Your task to perform on an android device: Empty the shopping cart on ebay.com. Search for alienware aurora on ebay.com, select the first entry, add it to the cart, then select checkout. Image 0: 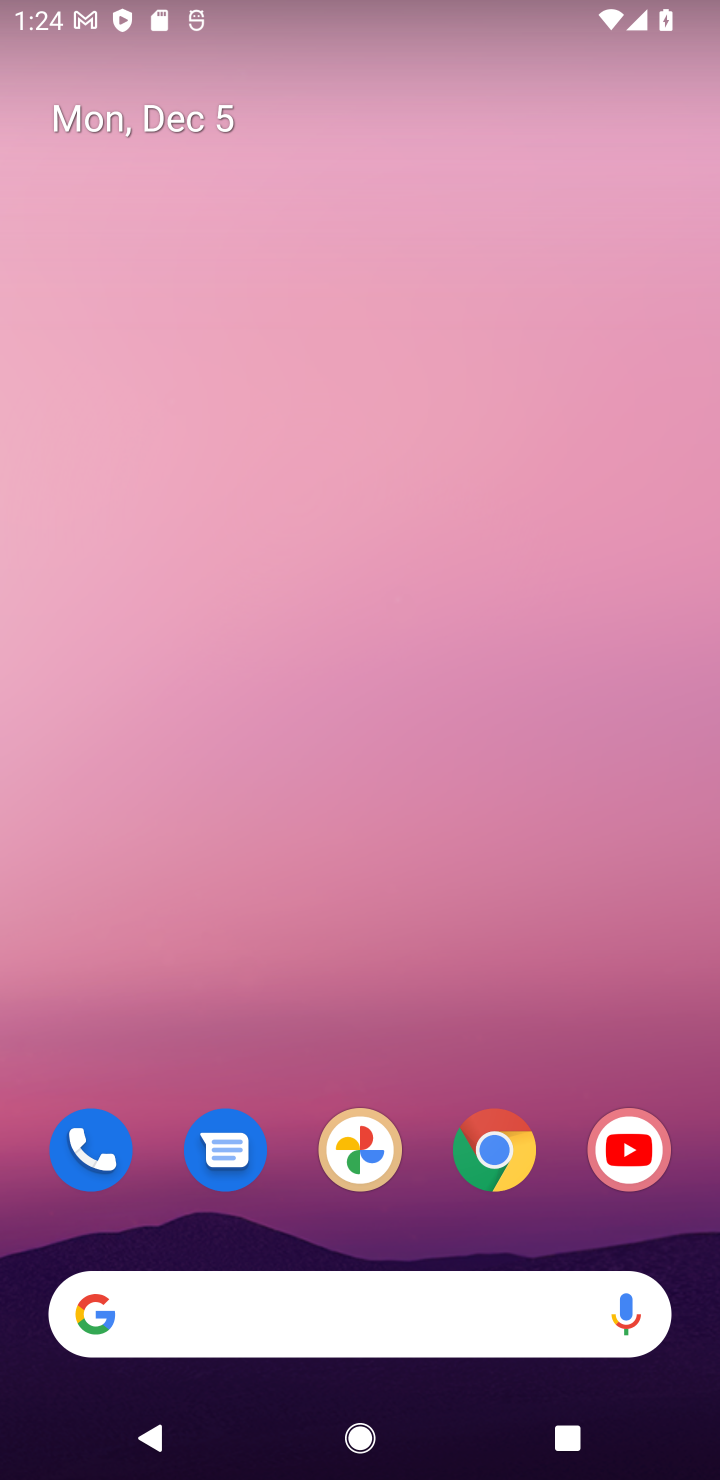
Step 0: click (479, 1151)
Your task to perform on an android device: Empty the shopping cart on ebay.com. Search for alienware aurora on ebay.com, select the first entry, add it to the cart, then select checkout. Image 1: 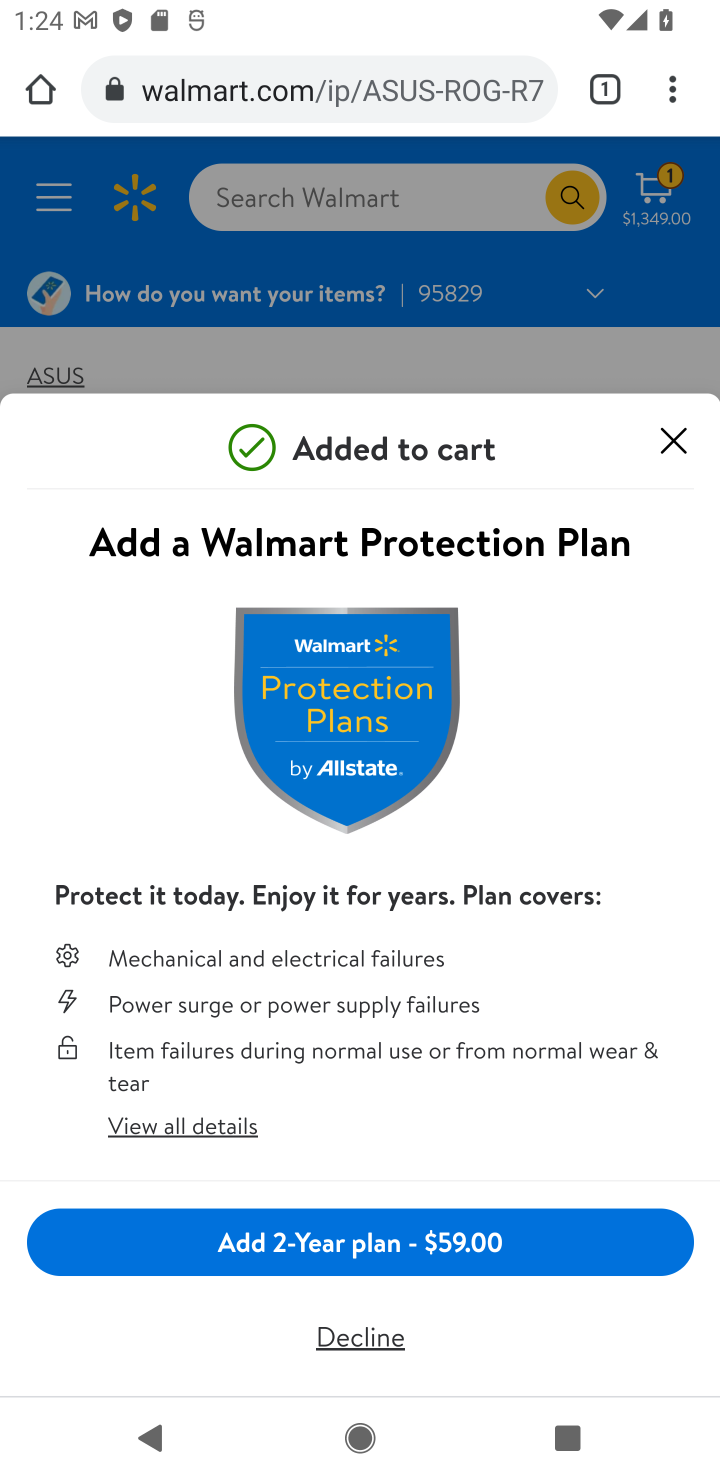
Step 1: click (438, 87)
Your task to perform on an android device: Empty the shopping cart on ebay.com. Search for alienware aurora on ebay.com, select the first entry, add it to the cart, then select checkout. Image 2: 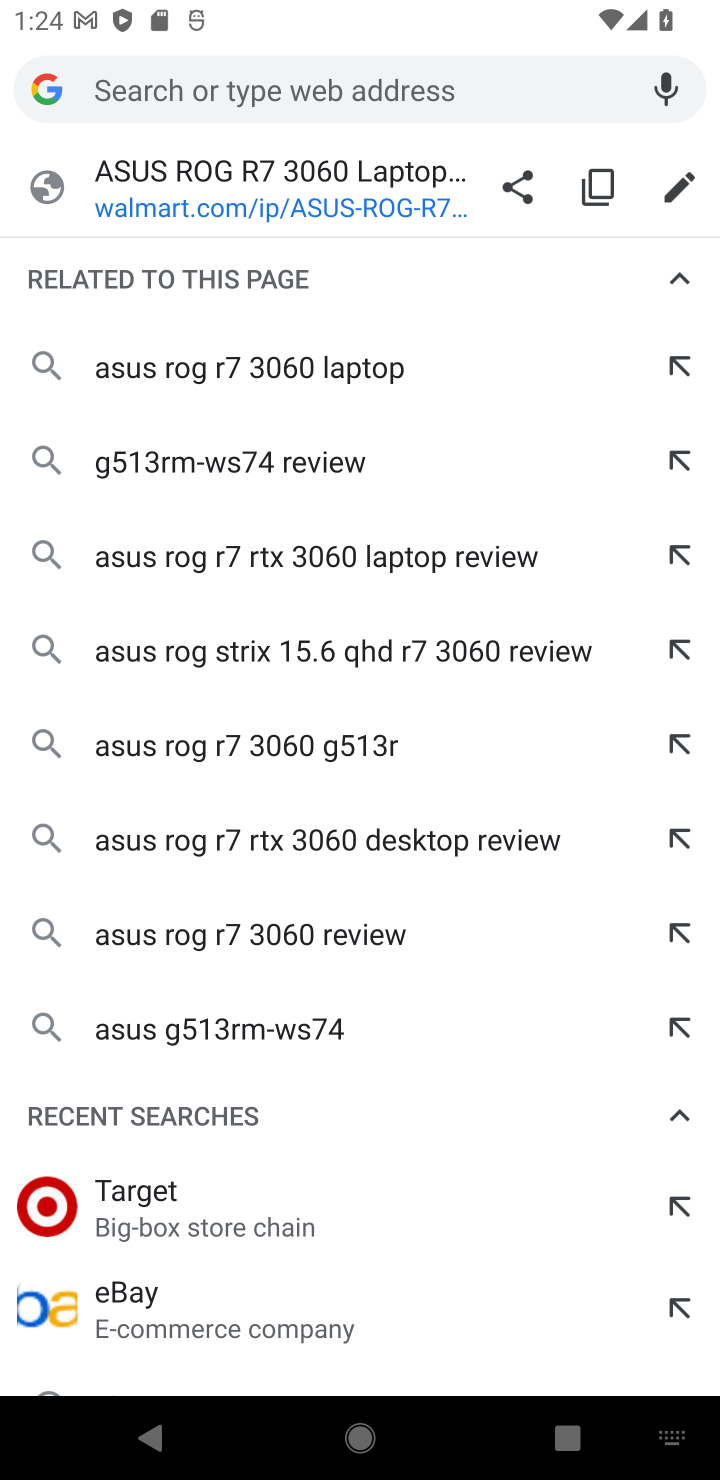
Step 2: click (125, 1297)
Your task to perform on an android device: Empty the shopping cart on ebay.com. Search for alienware aurora on ebay.com, select the first entry, add it to the cart, then select checkout. Image 3: 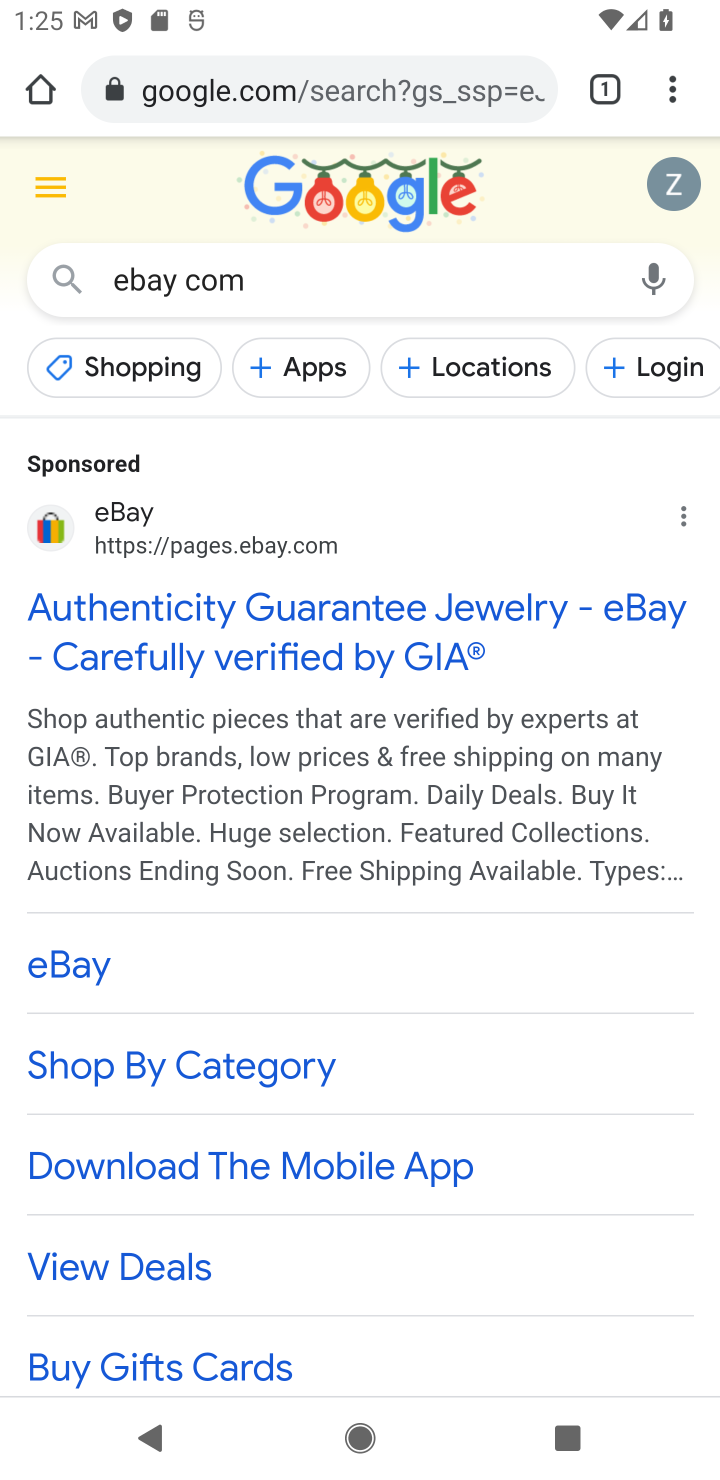
Step 3: click (225, 543)
Your task to perform on an android device: Empty the shopping cart on ebay.com. Search for alienware aurora on ebay.com, select the first entry, add it to the cart, then select checkout. Image 4: 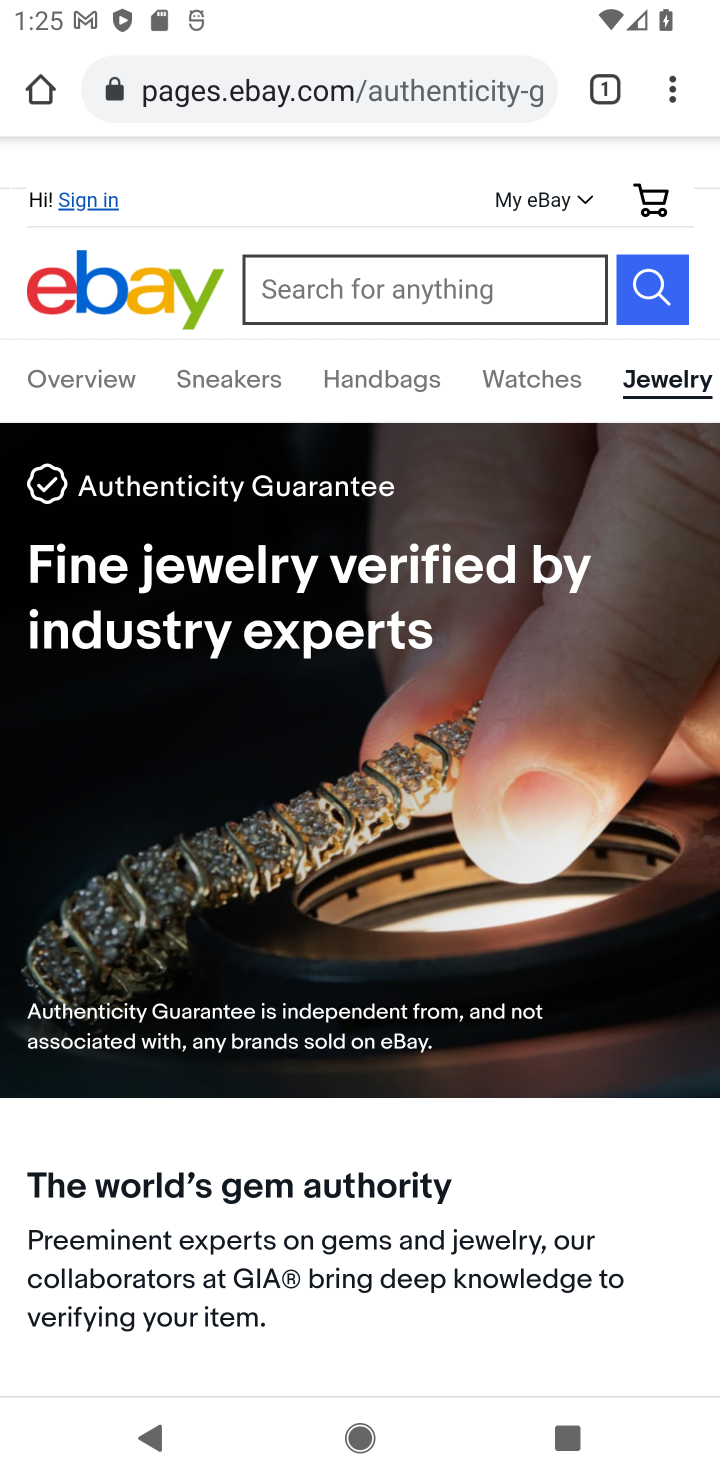
Step 4: click (413, 298)
Your task to perform on an android device: Empty the shopping cart on ebay.com. Search for alienware aurora on ebay.com, select the first entry, add it to the cart, then select checkout. Image 5: 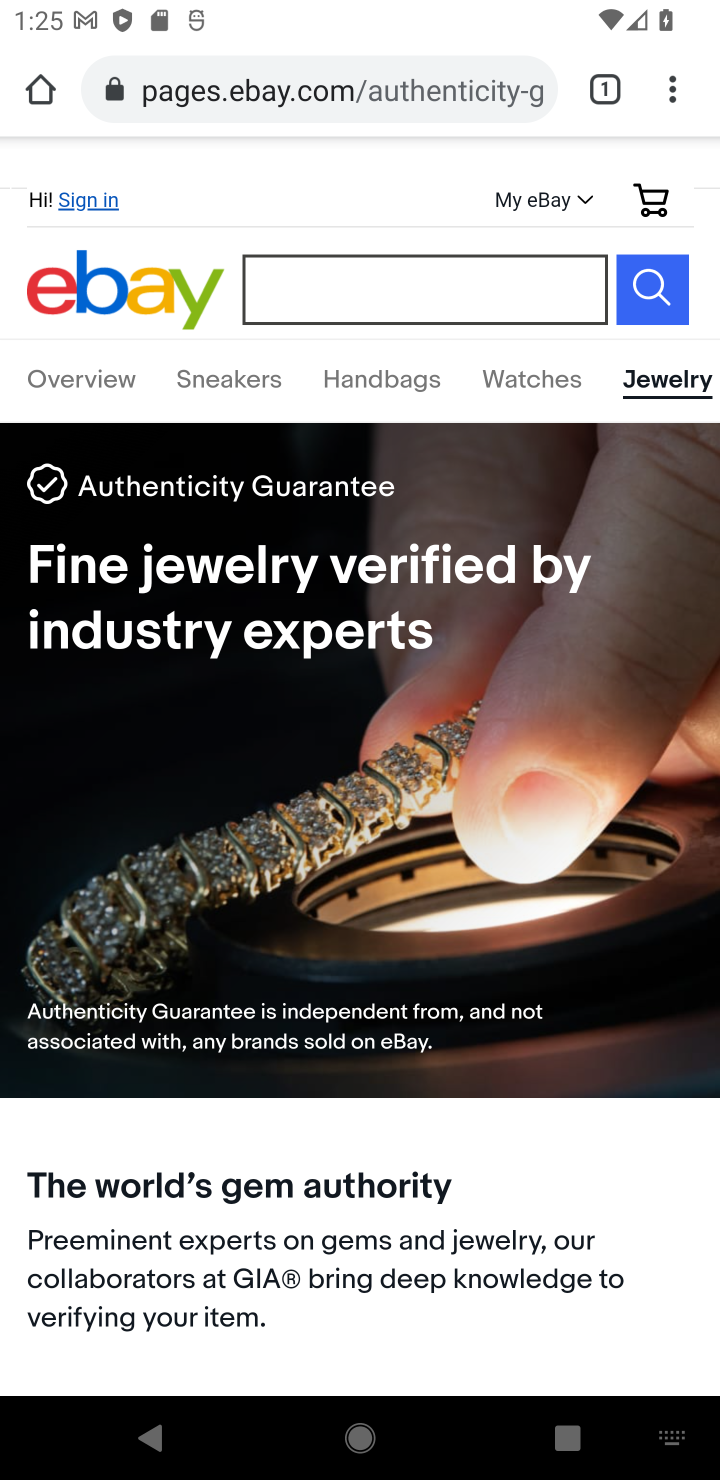
Step 5: press enter
Your task to perform on an android device: Empty the shopping cart on ebay.com. Search for alienware aurora on ebay.com, select the first entry, add it to the cart, then select checkout. Image 6: 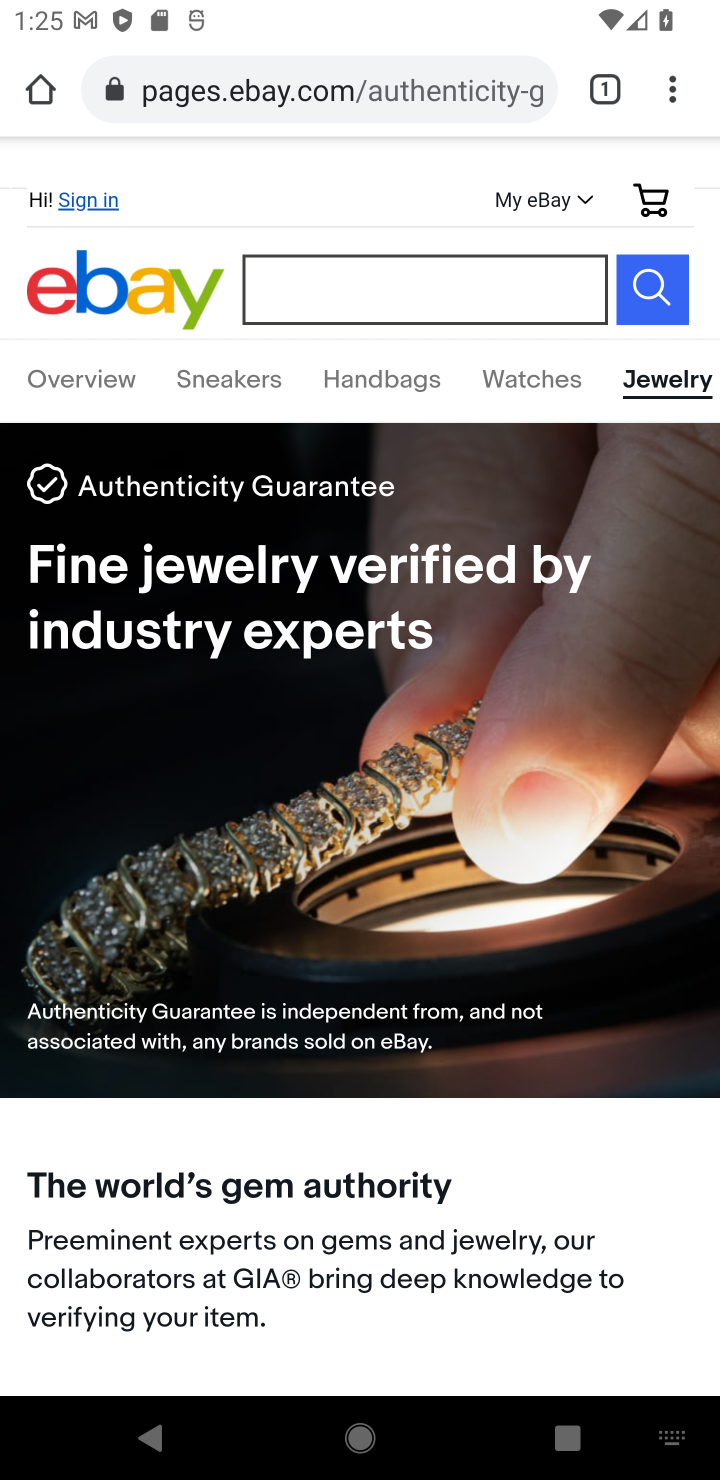
Step 6: type "alienware aurora"
Your task to perform on an android device: Empty the shopping cart on ebay.com. Search for alienware aurora on ebay.com, select the first entry, add it to the cart, then select checkout. Image 7: 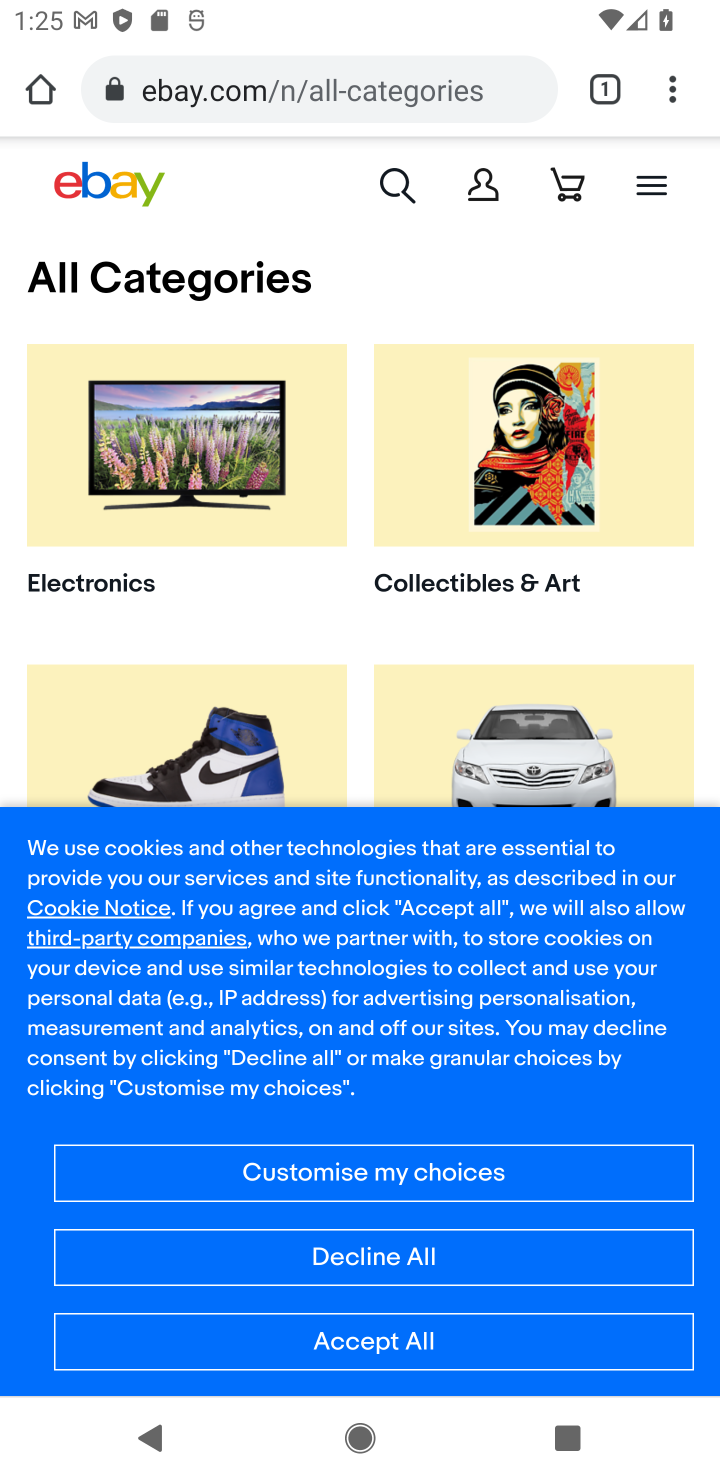
Step 7: click (427, 1346)
Your task to perform on an android device: Empty the shopping cart on ebay.com. Search for alienware aurora on ebay.com, select the first entry, add it to the cart, then select checkout. Image 8: 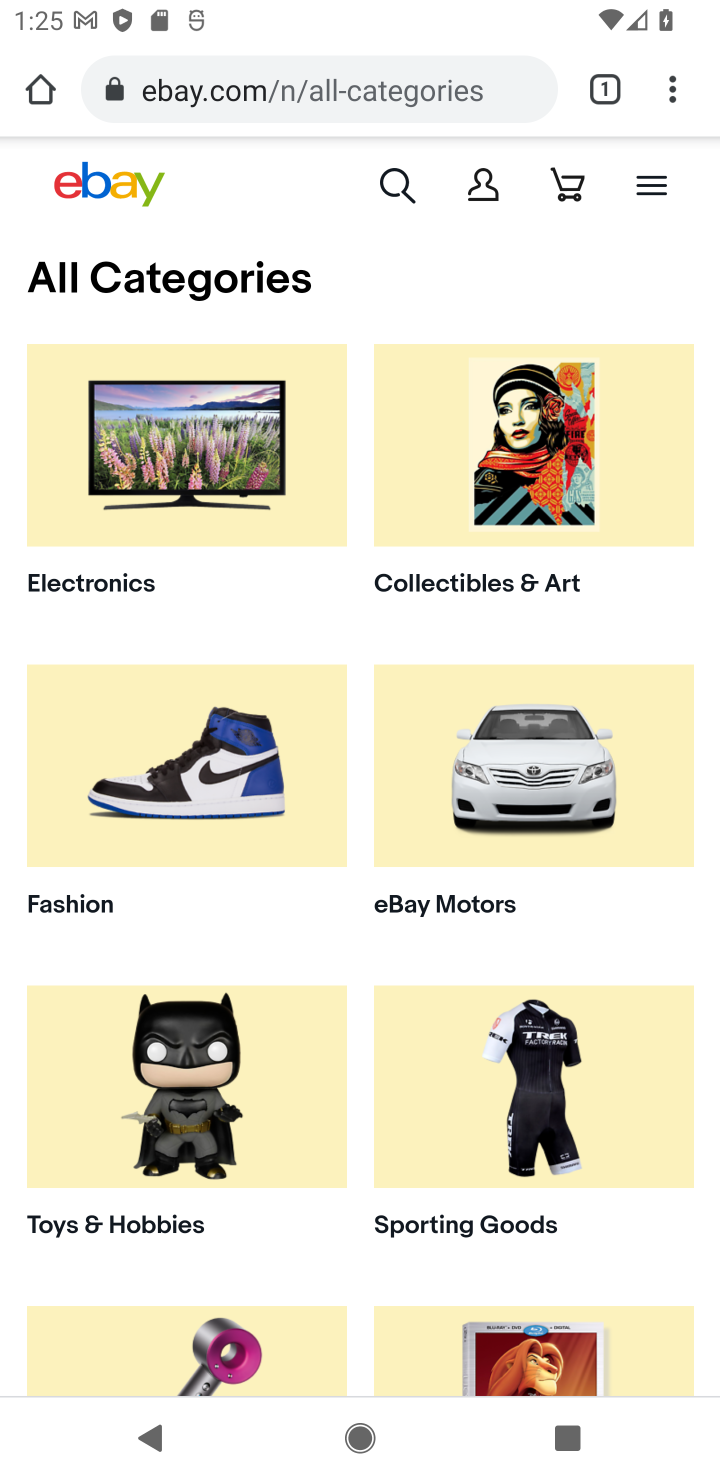
Step 8: click (396, 185)
Your task to perform on an android device: Empty the shopping cart on ebay.com. Search for alienware aurora on ebay.com, select the first entry, add it to the cart, then select checkout. Image 9: 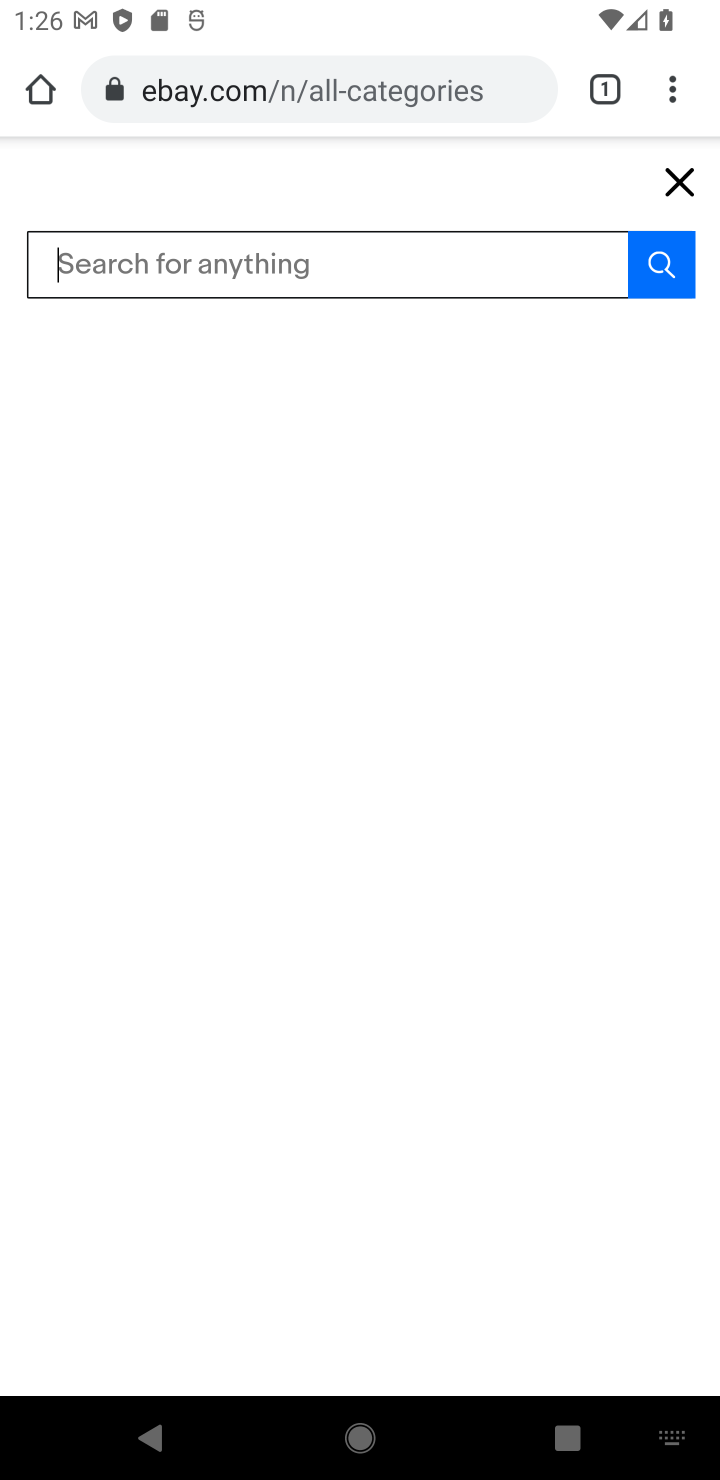
Step 9: type "alienware aurora"
Your task to perform on an android device: Empty the shopping cart on ebay.com. Search for alienware aurora on ebay.com, select the first entry, add it to the cart, then select checkout. Image 10: 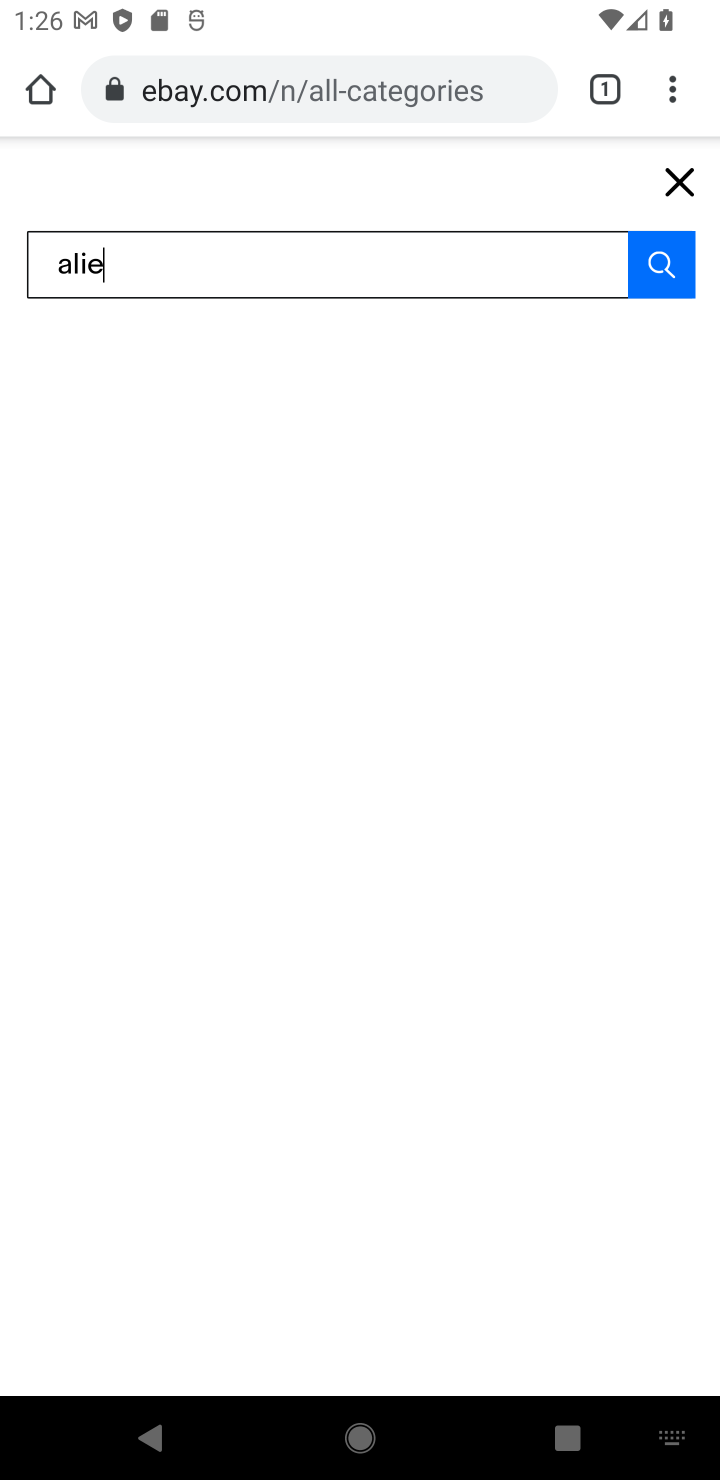
Step 10: press enter
Your task to perform on an android device: Empty the shopping cart on ebay.com. Search for alienware aurora on ebay.com, select the first entry, add it to the cart, then select checkout. Image 11: 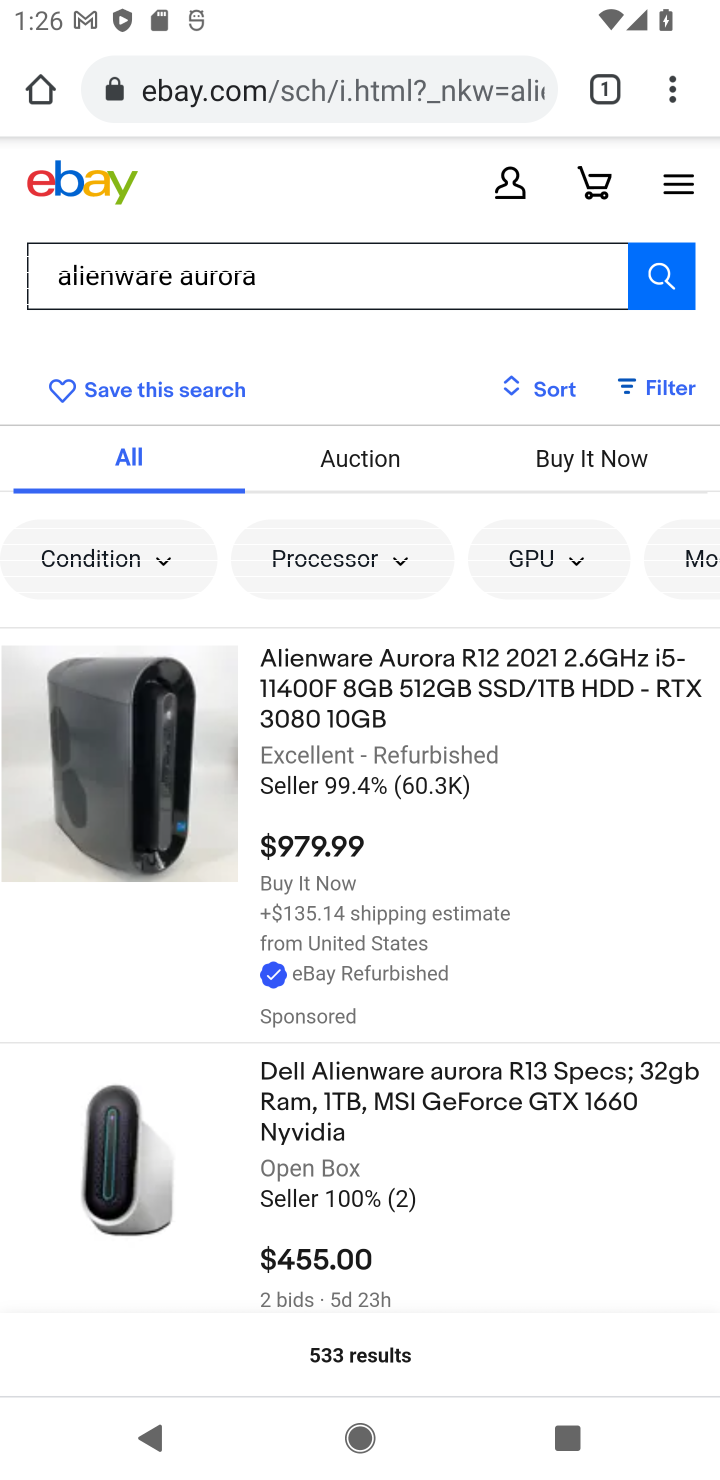
Step 11: click (112, 742)
Your task to perform on an android device: Empty the shopping cart on ebay.com. Search for alienware aurora on ebay.com, select the first entry, add it to the cart, then select checkout. Image 12: 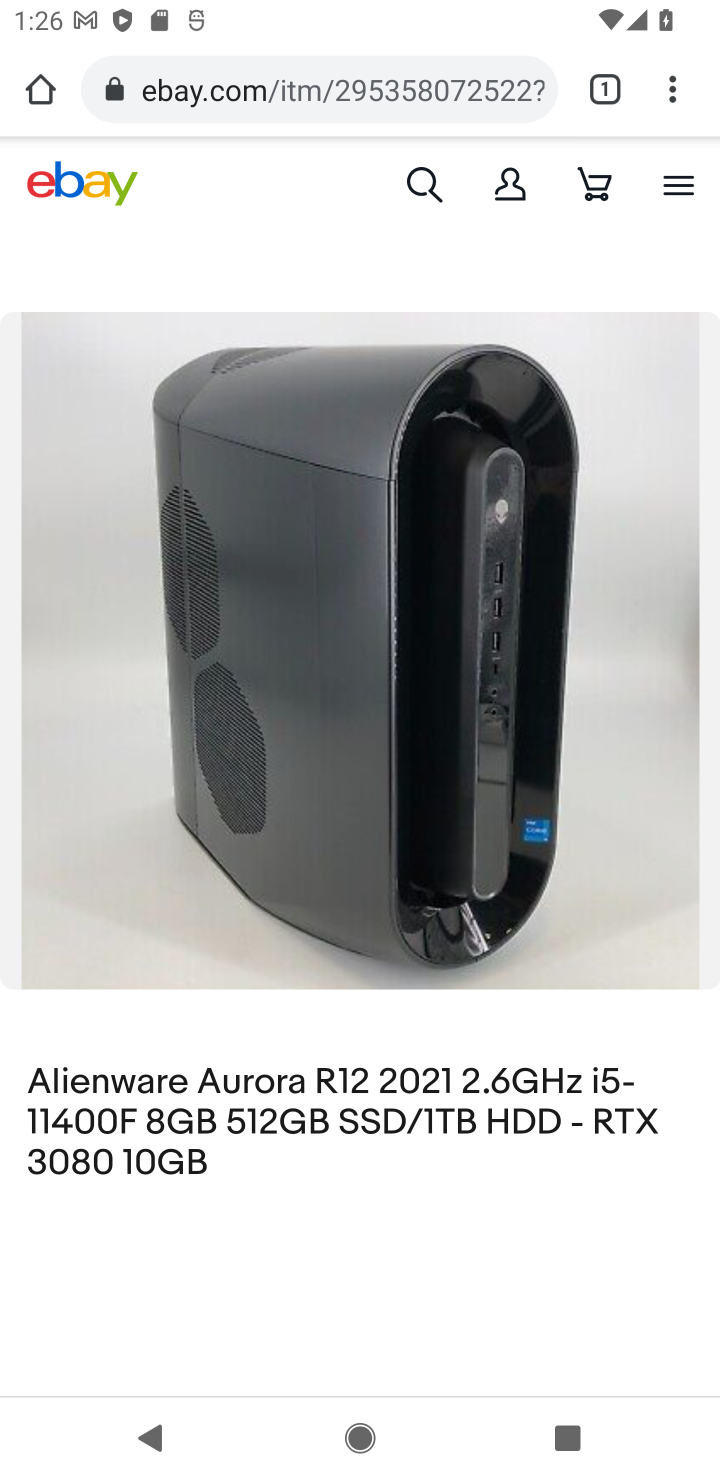
Step 12: drag from (610, 1159) to (606, 577)
Your task to perform on an android device: Empty the shopping cart on ebay.com. Search for alienware aurora on ebay.com, select the first entry, add it to the cart, then select checkout. Image 13: 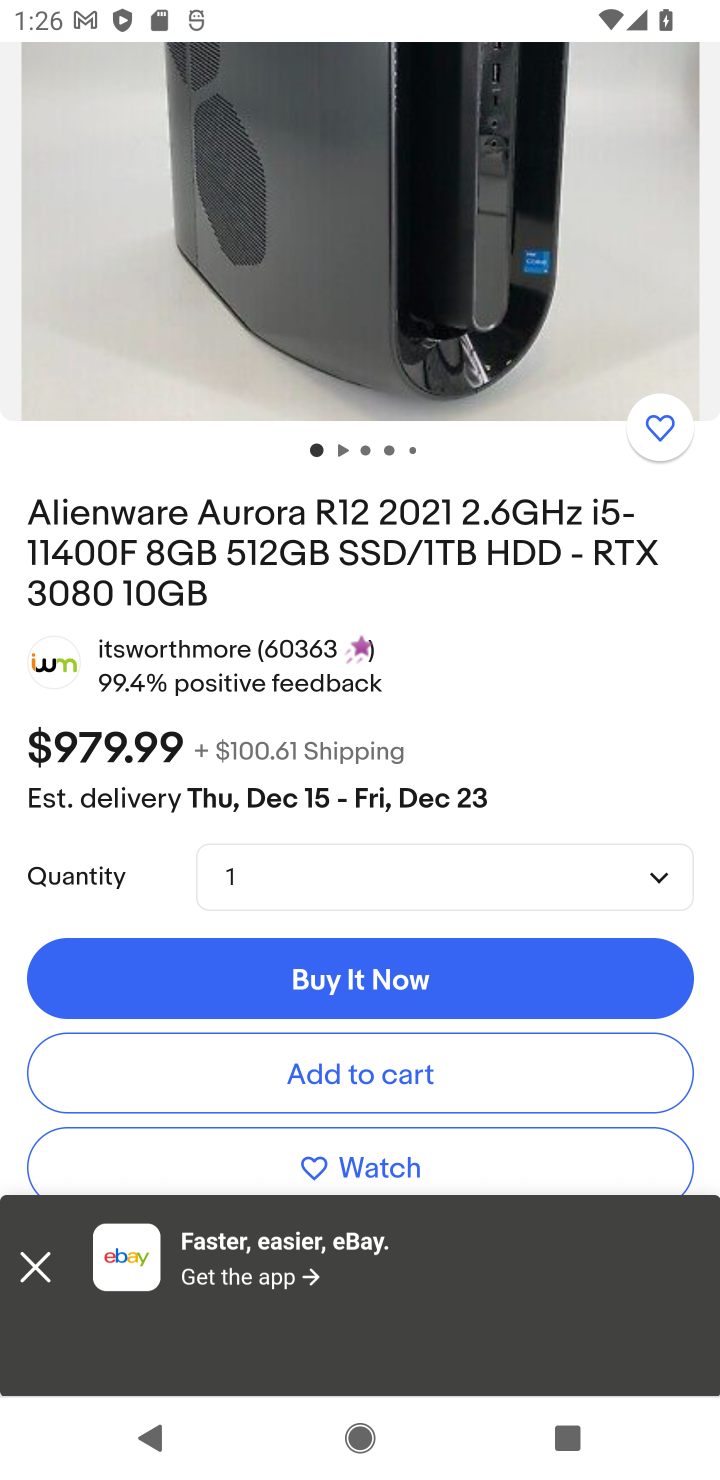
Step 13: click (374, 1065)
Your task to perform on an android device: Empty the shopping cart on ebay.com. Search for alienware aurora on ebay.com, select the first entry, add it to the cart, then select checkout. Image 14: 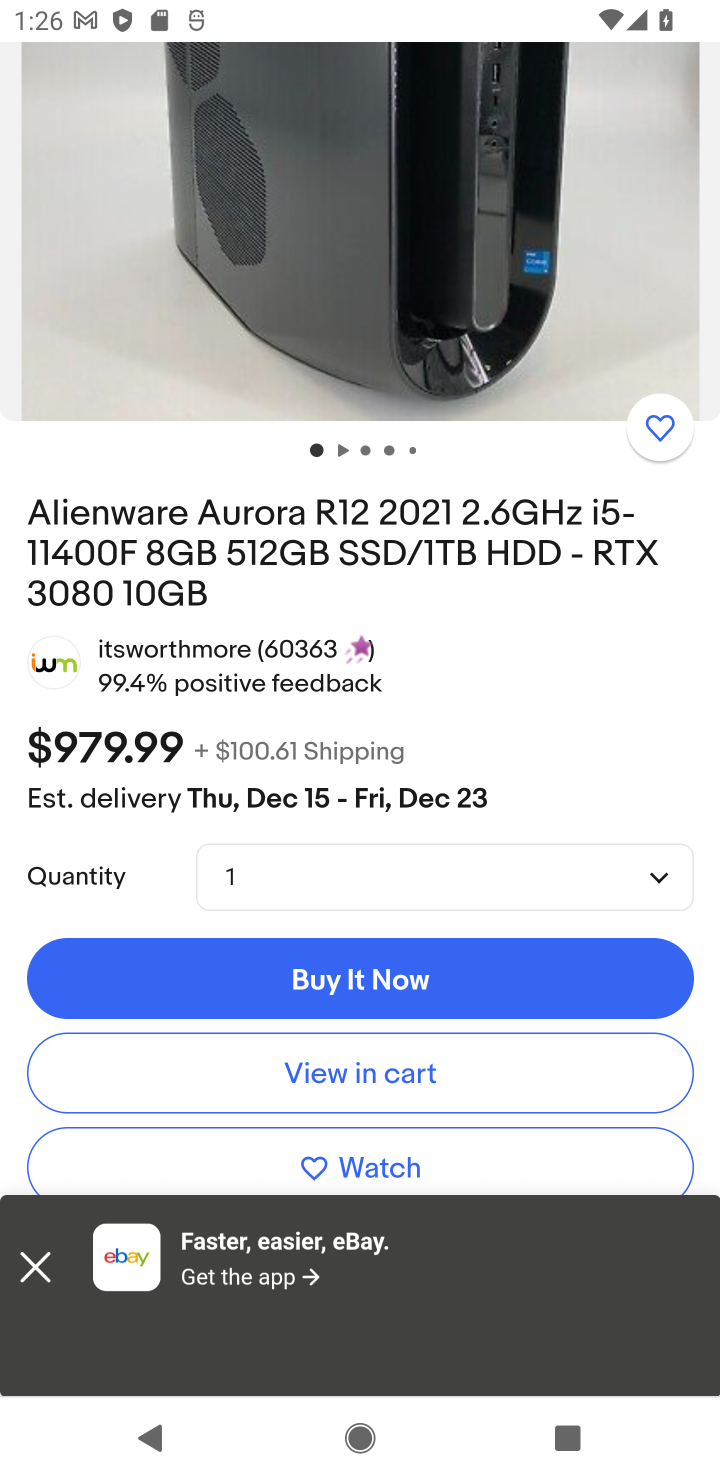
Step 14: click (373, 1064)
Your task to perform on an android device: Empty the shopping cart on ebay.com. Search for alienware aurora on ebay.com, select the first entry, add it to the cart, then select checkout. Image 15: 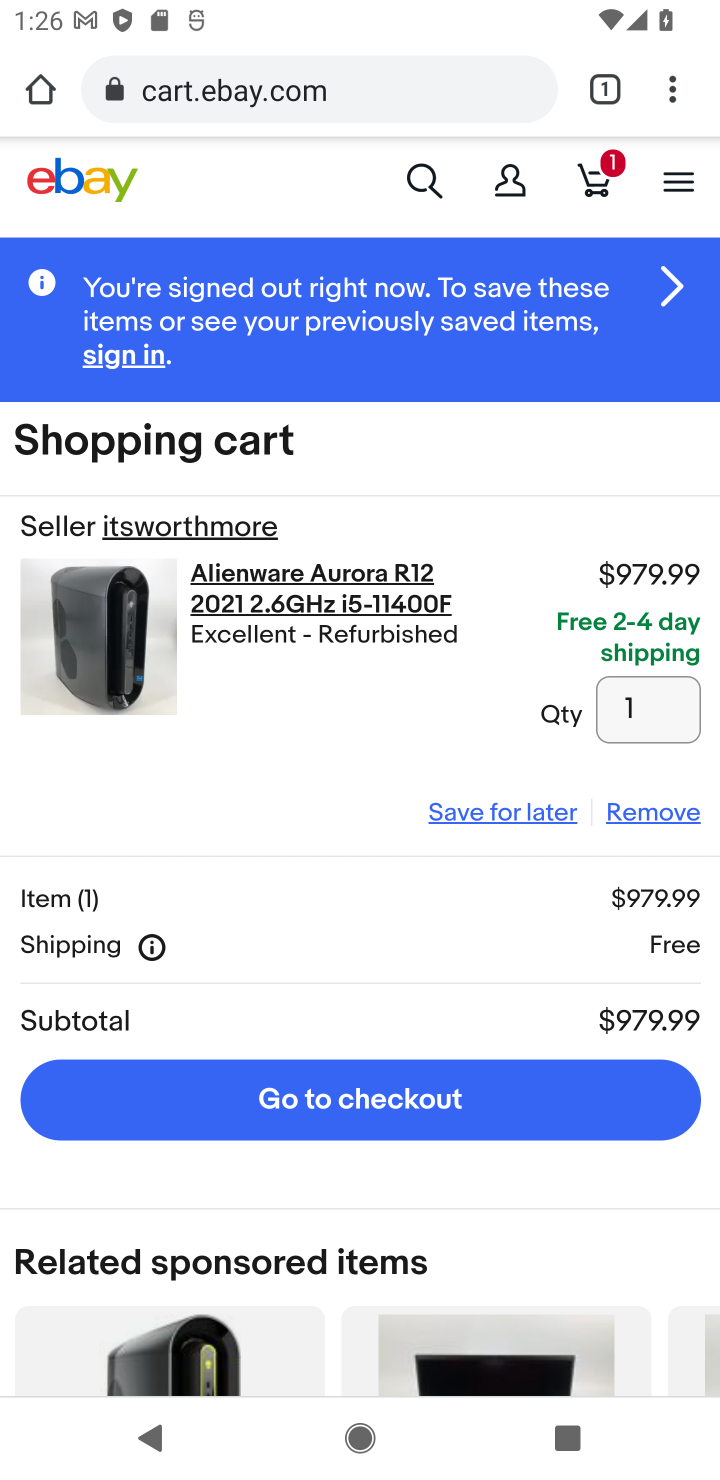
Step 15: click (389, 1097)
Your task to perform on an android device: Empty the shopping cart on ebay.com. Search for alienware aurora on ebay.com, select the first entry, add it to the cart, then select checkout. Image 16: 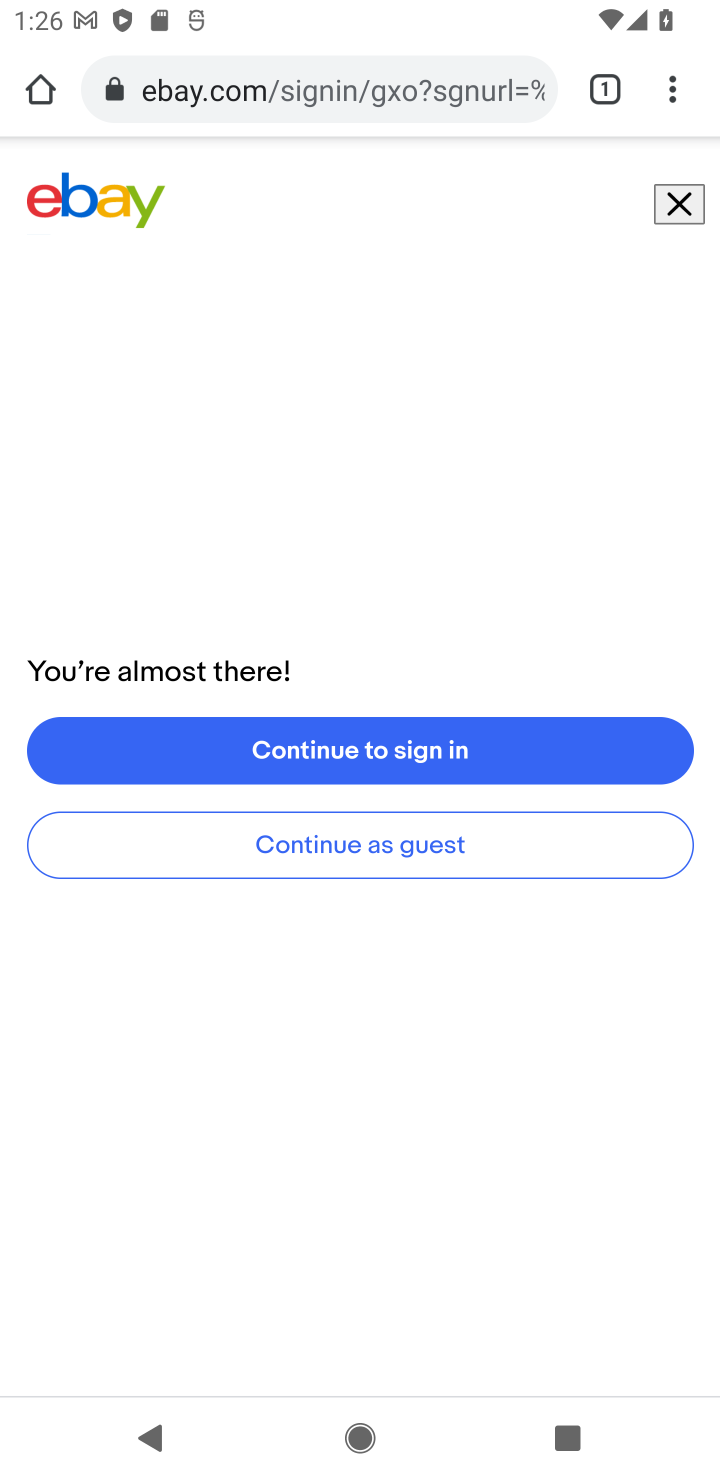
Step 16: task complete